Your task to perform on an android device: Show me popular videos on Youtube Image 0: 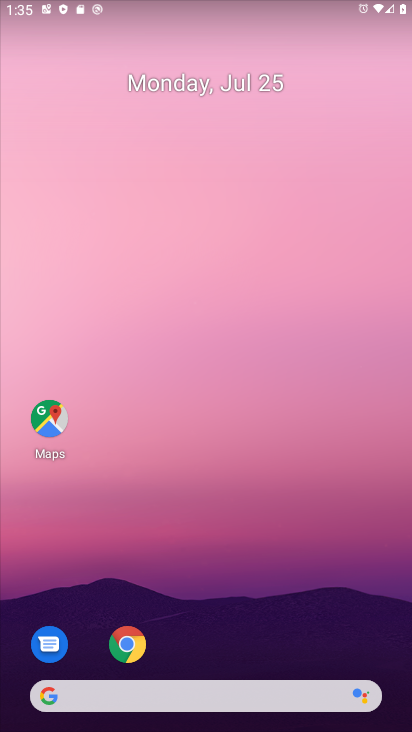
Step 0: drag from (294, 635) to (95, 42)
Your task to perform on an android device: Show me popular videos on Youtube Image 1: 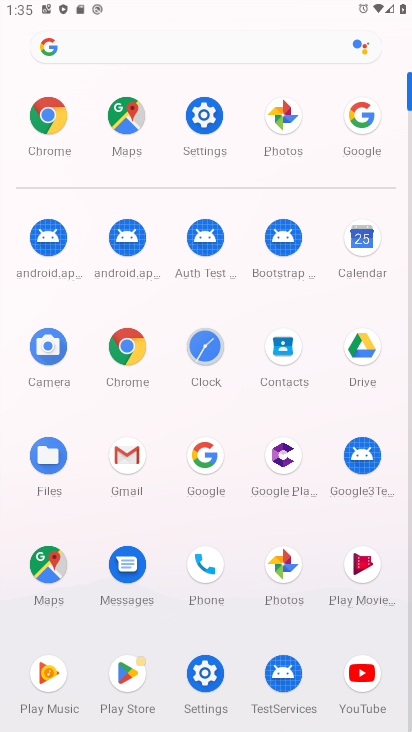
Step 1: click (360, 679)
Your task to perform on an android device: Show me popular videos on Youtube Image 2: 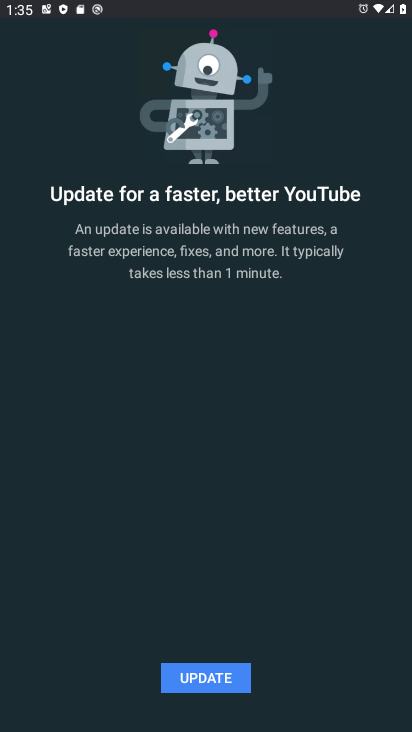
Step 2: click (203, 684)
Your task to perform on an android device: Show me popular videos on Youtube Image 3: 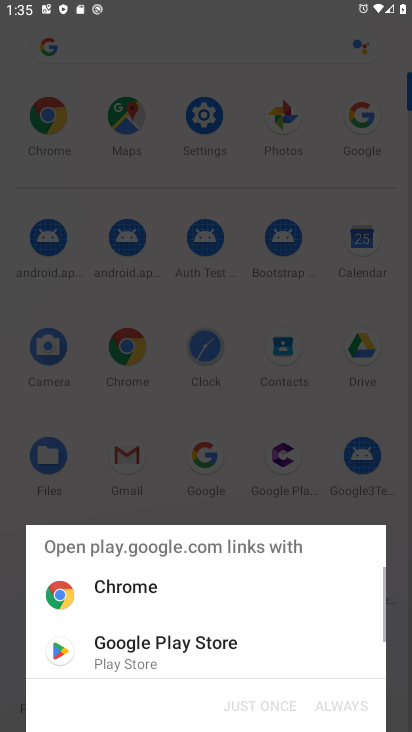
Step 3: drag from (95, 640) to (133, 640)
Your task to perform on an android device: Show me popular videos on Youtube Image 4: 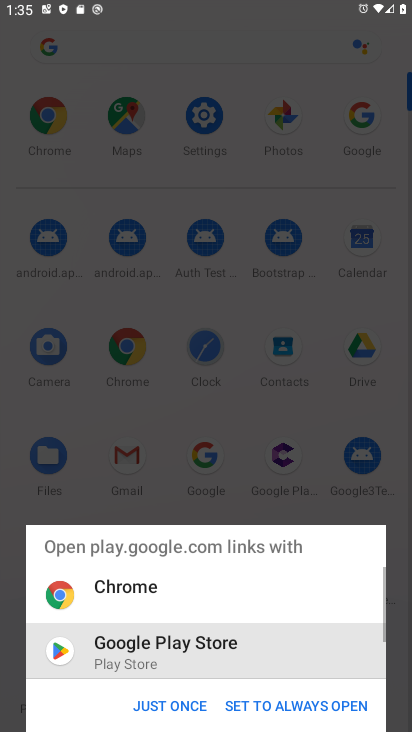
Step 4: click (157, 701)
Your task to perform on an android device: Show me popular videos on Youtube Image 5: 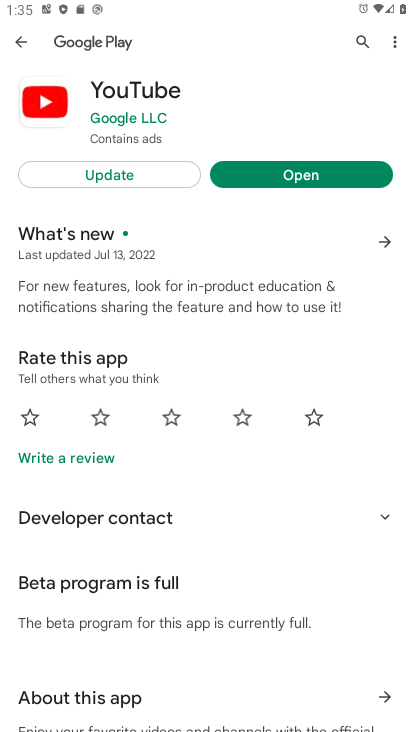
Step 5: click (99, 171)
Your task to perform on an android device: Show me popular videos on Youtube Image 6: 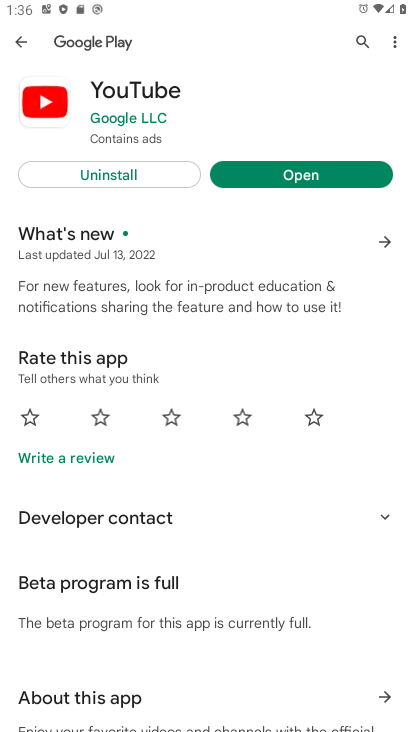
Step 6: task complete